Your task to perform on an android device: turn off improve location accuracy Image 0: 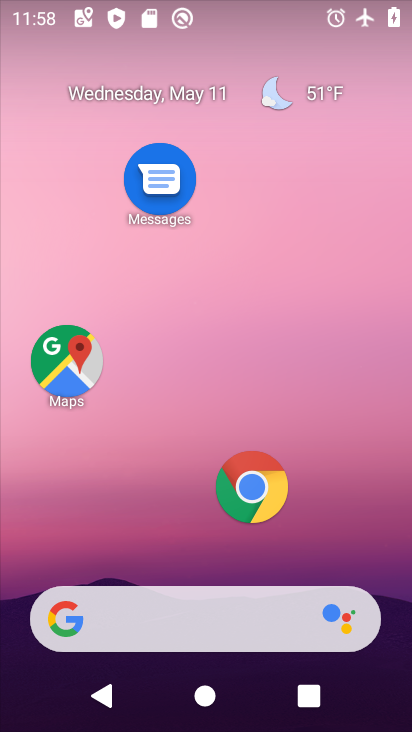
Step 0: drag from (212, 522) to (267, 92)
Your task to perform on an android device: turn off improve location accuracy Image 1: 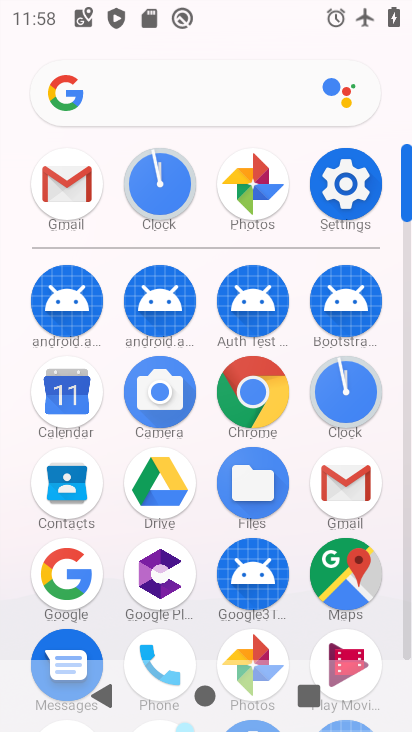
Step 1: click (355, 178)
Your task to perform on an android device: turn off improve location accuracy Image 2: 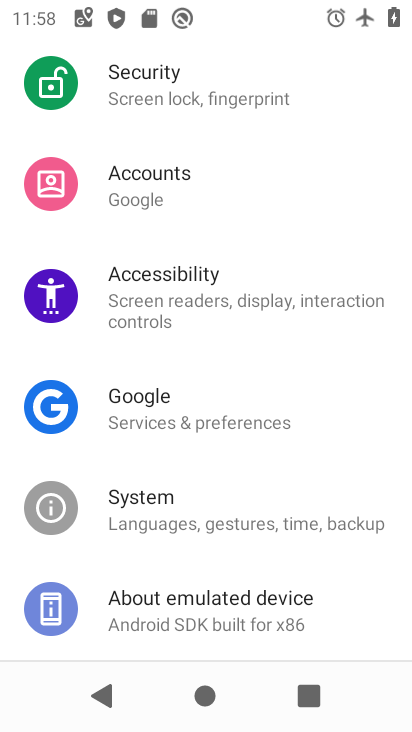
Step 2: drag from (203, 511) to (259, 145)
Your task to perform on an android device: turn off improve location accuracy Image 3: 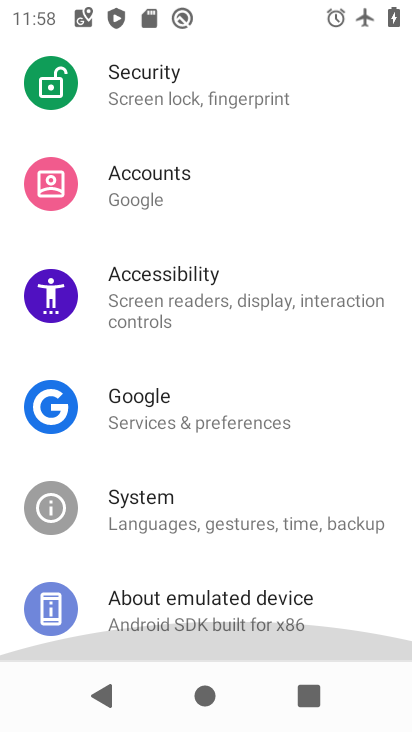
Step 3: drag from (259, 144) to (258, 472)
Your task to perform on an android device: turn off improve location accuracy Image 4: 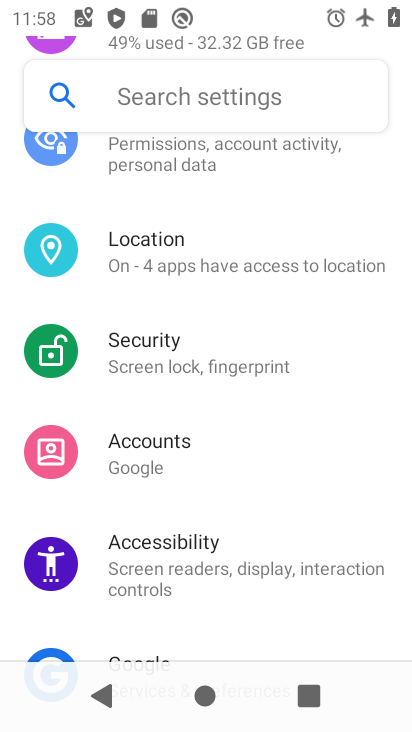
Step 4: click (169, 252)
Your task to perform on an android device: turn off improve location accuracy Image 5: 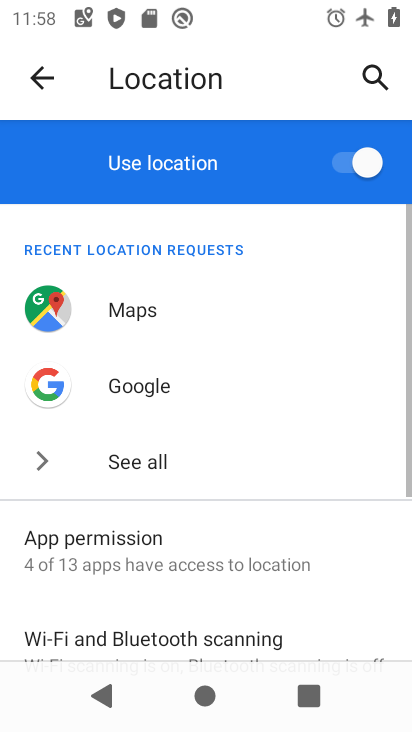
Step 5: drag from (226, 553) to (260, 240)
Your task to perform on an android device: turn off improve location accuracy Image 6: 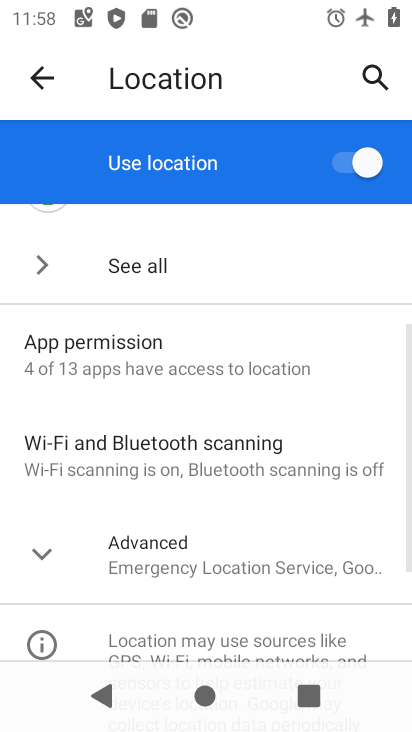
Step 6: click (169, 556)
Your task to perform on an android device: turn off improve location accuracy Image 7: 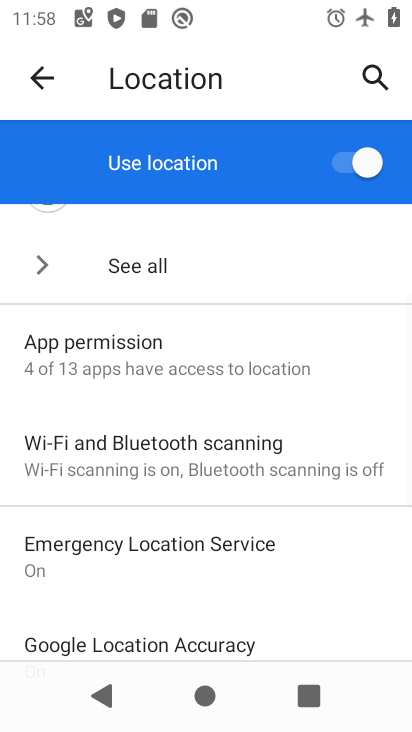
Step 7: drag from (211, 534) to (255, 278)
Your task to perform on an android device: turn off improve location accuracy Image 8: 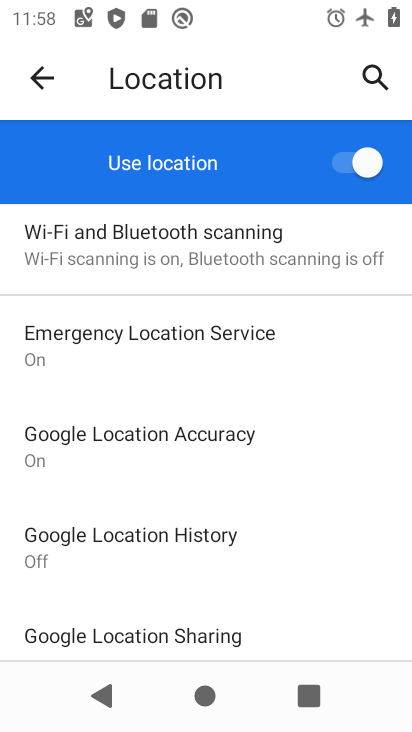
Step 8: click (241, 419)
Your task to perform on an android device: turn off improve location accuracy Image 9: 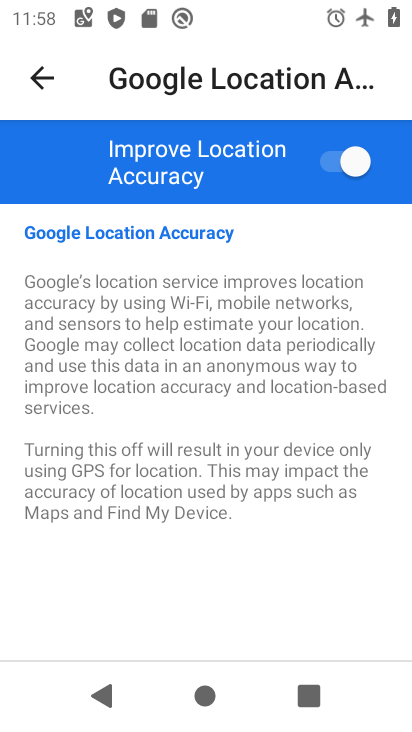
Step 9: click (338, 153)
Your task to perform on an android device: turn off improve location accuracy Image 10: 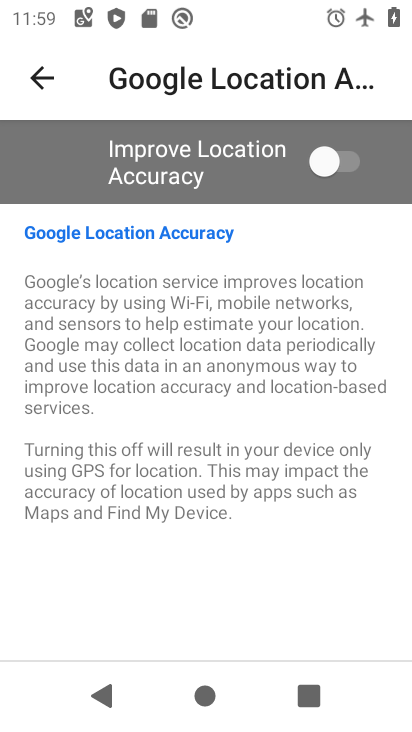
Step 10: task complete